Your task to perform on an android device: clear all cookies in the chrome app Image 0: 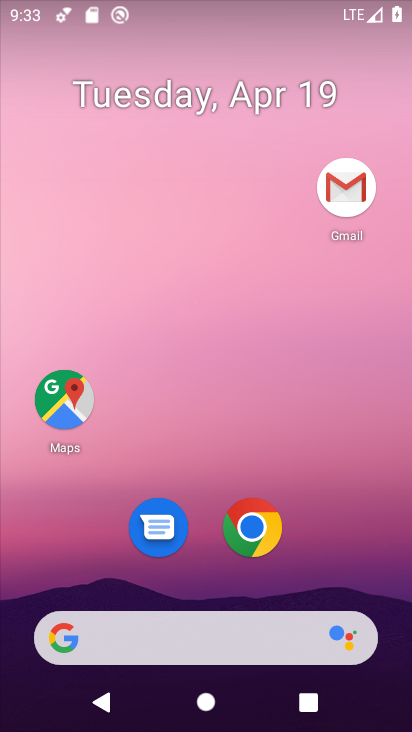
Step 0: drag from (375, 536) to (317, 146)
Your task to perform on an android device: clear all cookies in the chrome app Image 1: 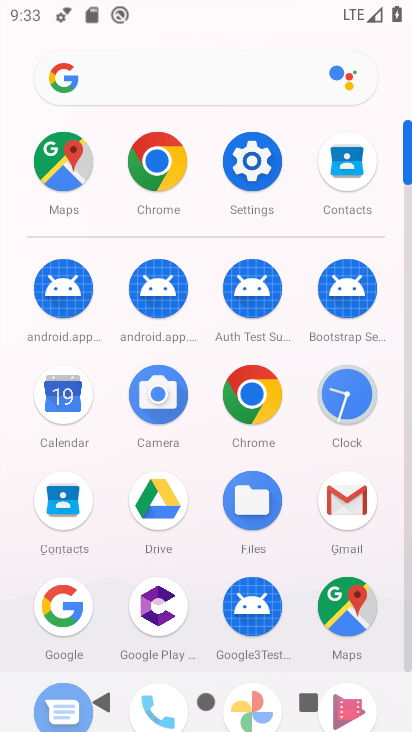
Step 1: click (255, 400)
Your task to perform on an android device: clear all cookies in the chrome app Image 2: 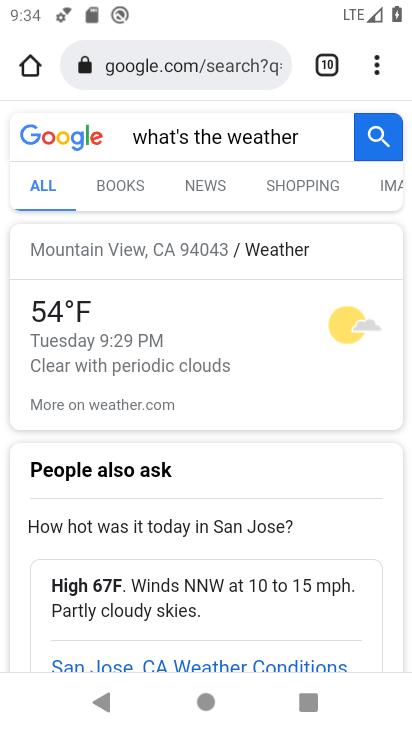
Step 2: click (380, 75)
Your task to perform on an android device: clear all cookies in the chrome app Image 3: 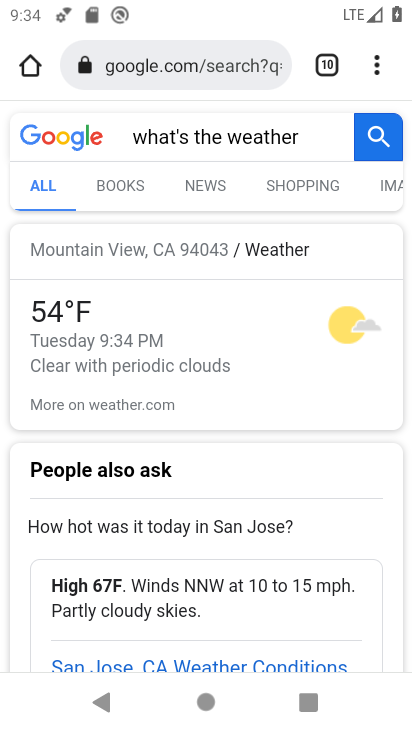
Step 3: click (388, 90)
Your task to perform on an android device: clear all cookies in the chrome app Image 4: 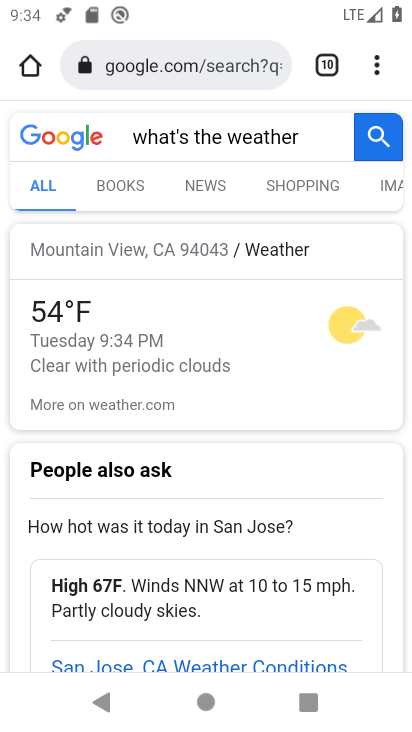
Step 4: click (405, 90)
Your task to perform on an android device: clear all cookies in the chrome app Image 5: 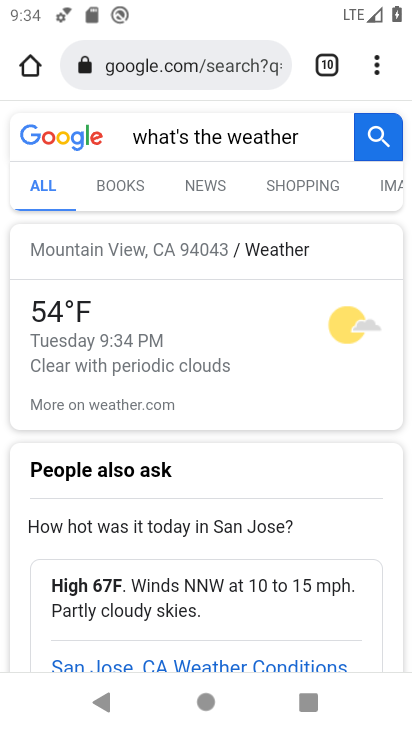
Step 5: click (405, 90)
Your task to perform on an android device: clear all cookies in the chrome app Image 6: 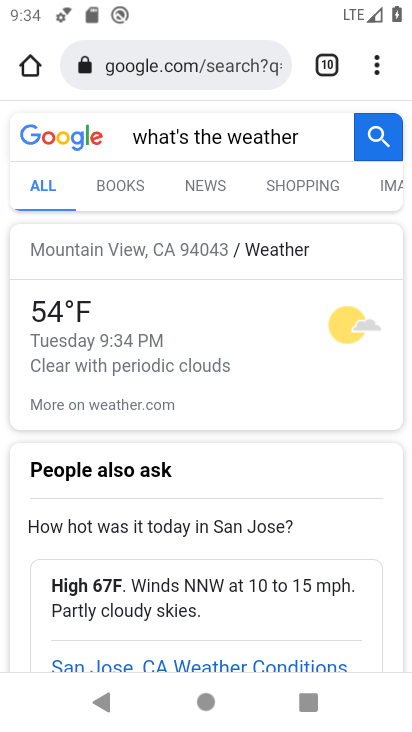
Step 6: click (411, 56)
Your task to perform on an android device: clear all cookies in the chrome app Image 7: 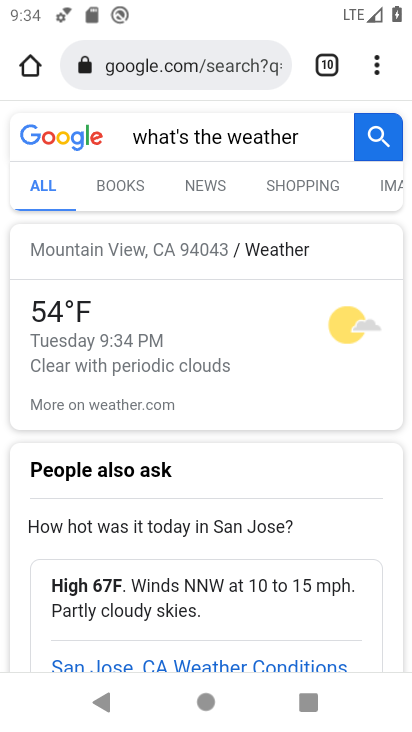
Step 7: click (383, 69)
Your task to perform on an android device: clear all cookies in the chrome app Image 8: 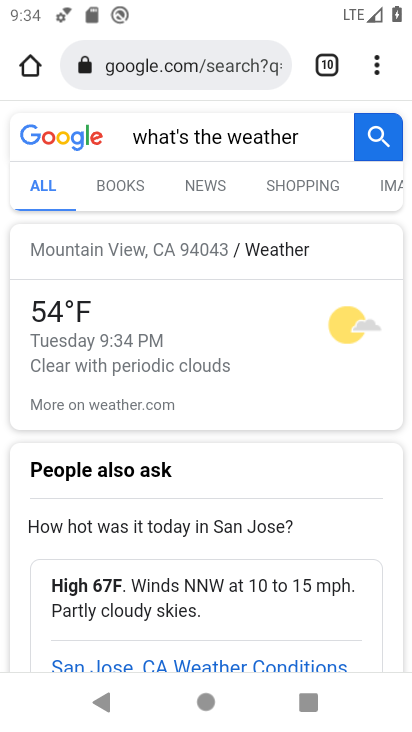
Step 8: drag from (383, 75) to (383, 252)
Your task to perform on an android device: clear all cookies in the chrome app Image 9: 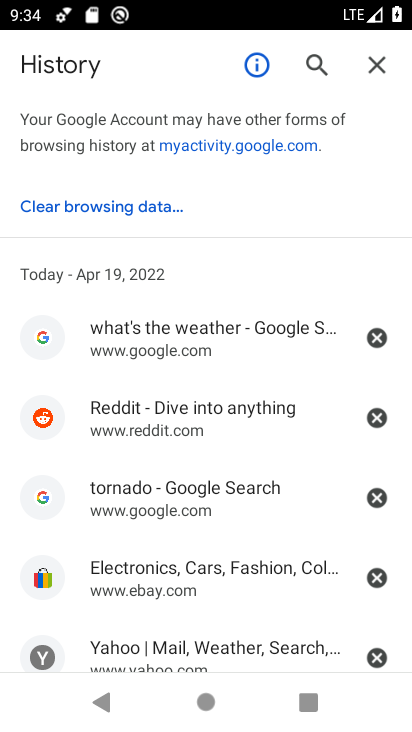
Step 9: click (142, 201)
Your task to perform on an android device: clear all cookies in the chrome app Image 10: 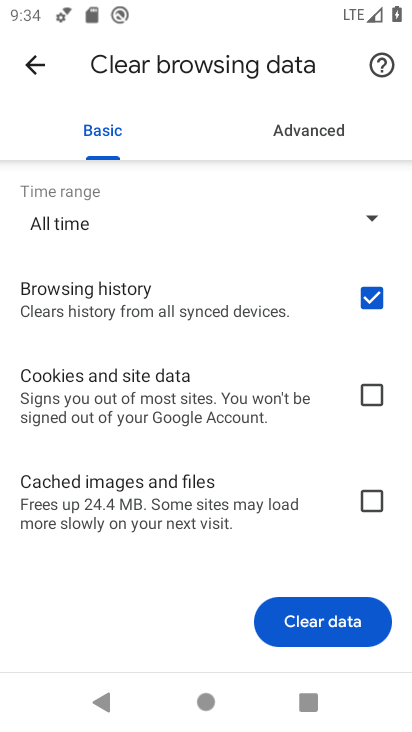
Step 10: click (380, 389)
Your task to perform on an android device: clear all cookies in the chrome app Image 11: 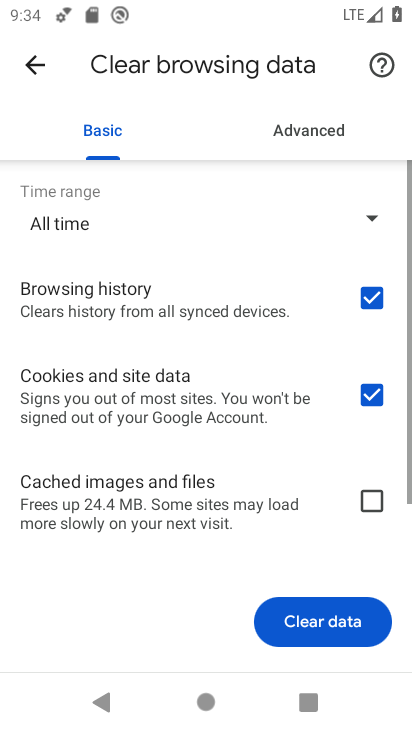
Step 11: click (307, 645)
Your task to perform on an android device: clear all cookies in the chrome app Image 12: 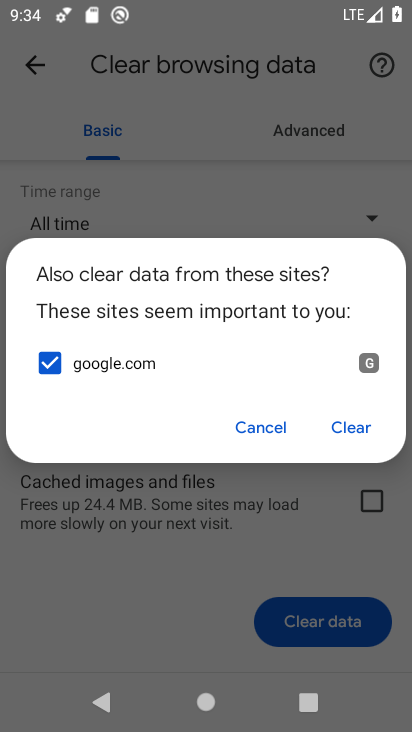
Step 12: click (352, 423)
Your task to perform on an android device: clear all cookies in the chrome app Image 13: 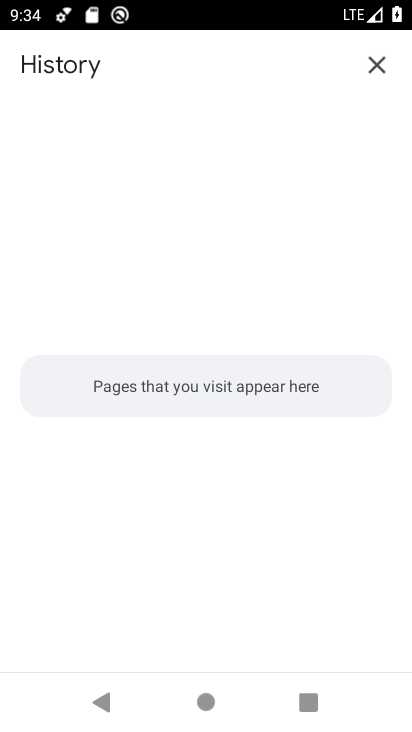
Step 13: task complete